Your task to perform on an android device: Go to Reddit.com Image 0: 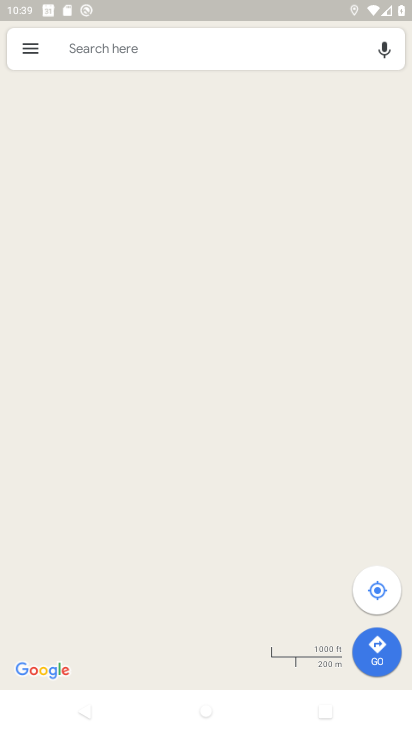
Step 0: press home button
Your task to perform on an android device: Go to Reddit.com Image 1: 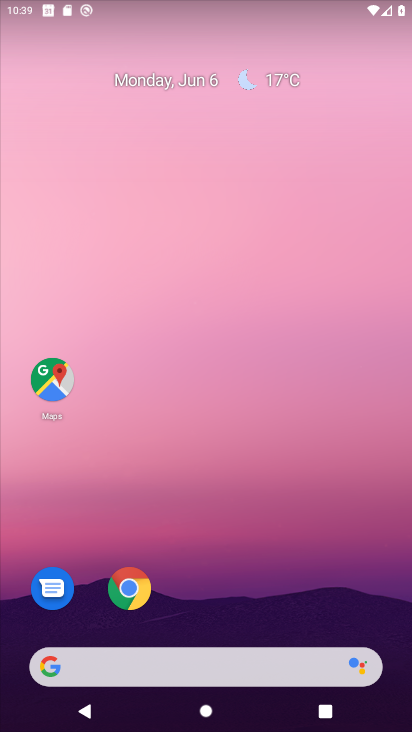
Step 1: click (226, 677)
Your task to perform on an android device: Go to Reddit.com Image 2: 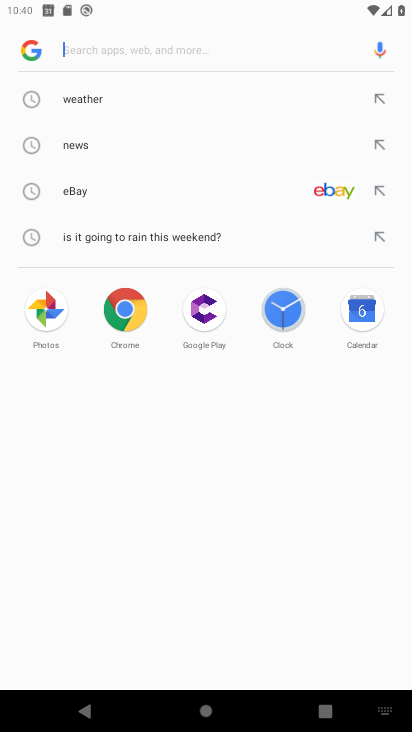
Step 2: type "Reddit.com"
Your task to perform on an android device: Go to Reddit.com Image 3: 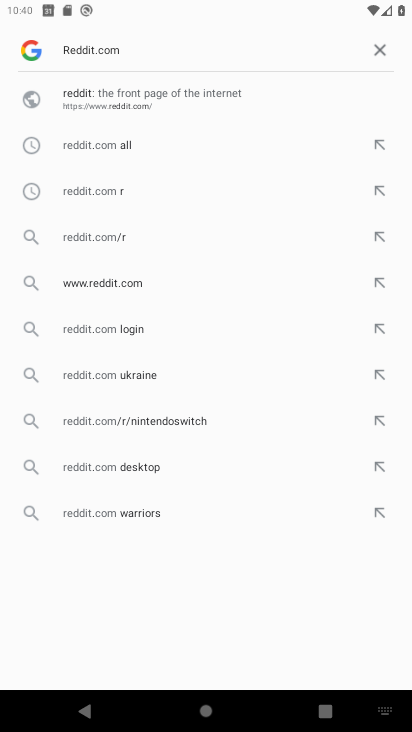
Step 3: click (188, 101)
Your task to perform on an android device: Go to Reddit.com Image 4: 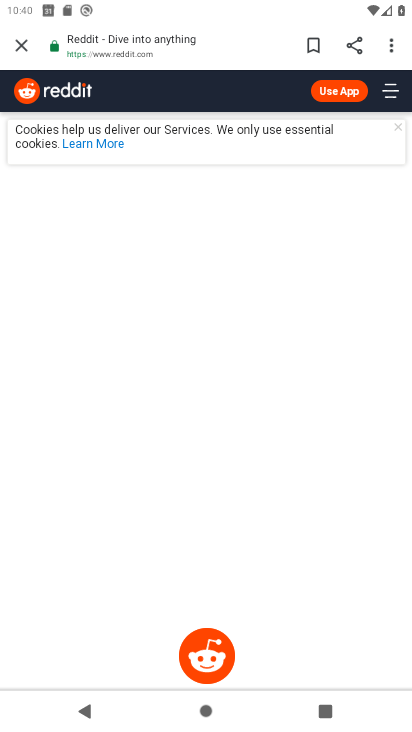
Step 4: task complete